Your task to perform on an android device: Open battery settings Image 0: 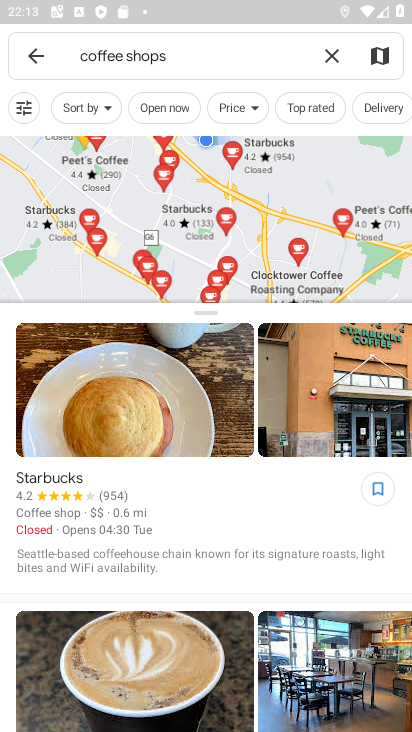
Step 0: press home button
Your task to perform on an android device: Open battery settings Image 1: 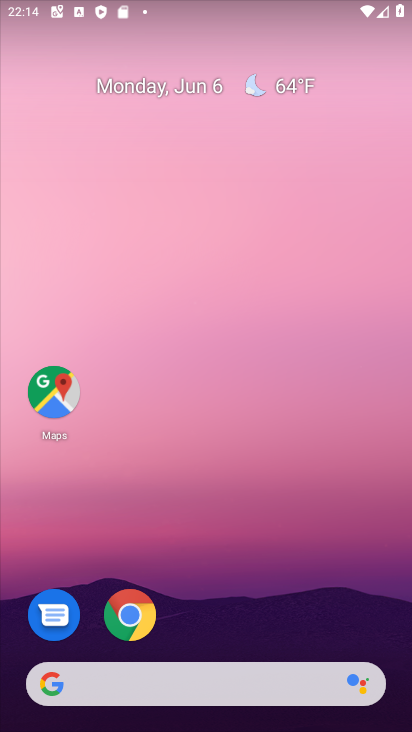
Step 1: drag from (381, 612) to (281, 100)
Your task to perform on an android device: Open battery settings Image 2: 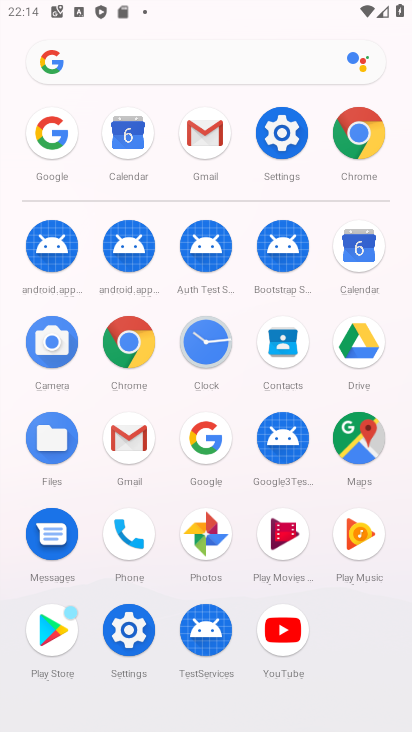
Step 2: click (289, 124)
Your task to perform on an android device: Open battery settings Image 3: 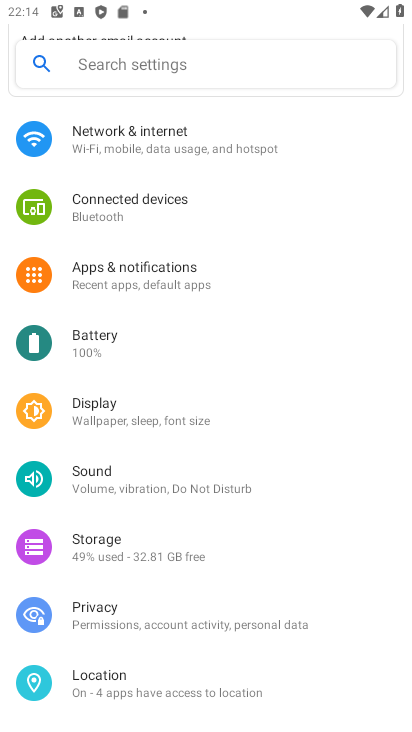
Step 3: click (81, 342)
Your task to perform on an android device: Open battery settings Image 4: 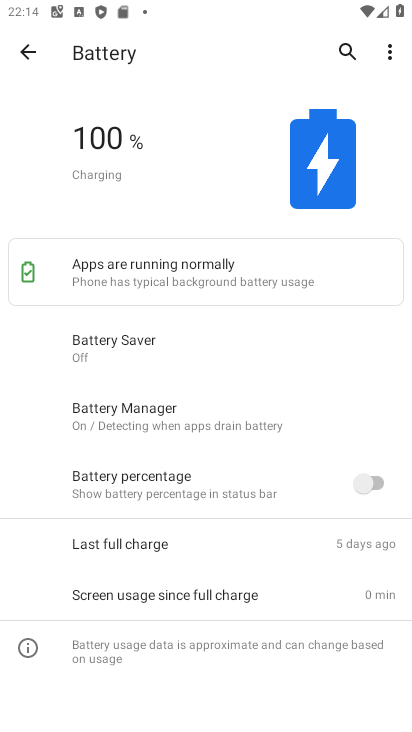
Step 4: task complete